Your task to perform on an android device: find snoozed emails in the gmail app Image 0: 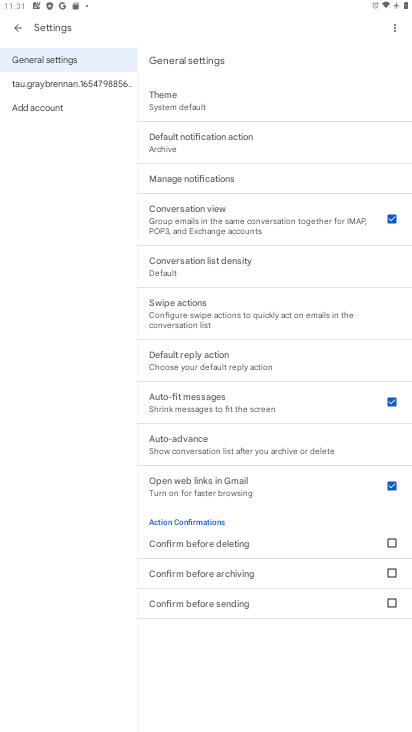
Step 0: press home button
Your task to perform on an android device: find snoozed emails in the gmail app Image 1: 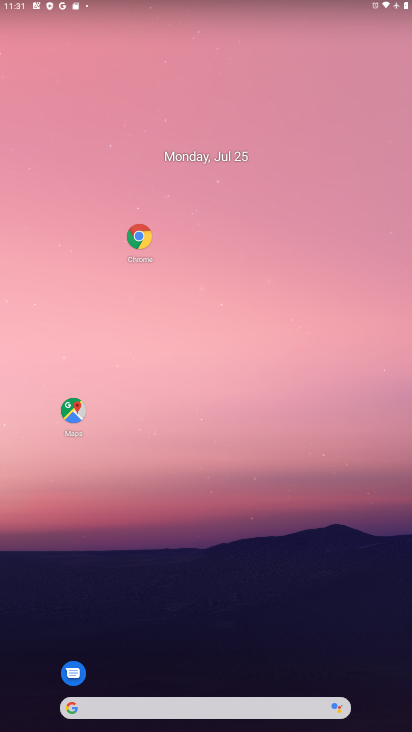
Step 1: drag from (264, 654) to (244, 110)
Your task to perform on an android device: find snoozed emails in the gmail app Image 2: 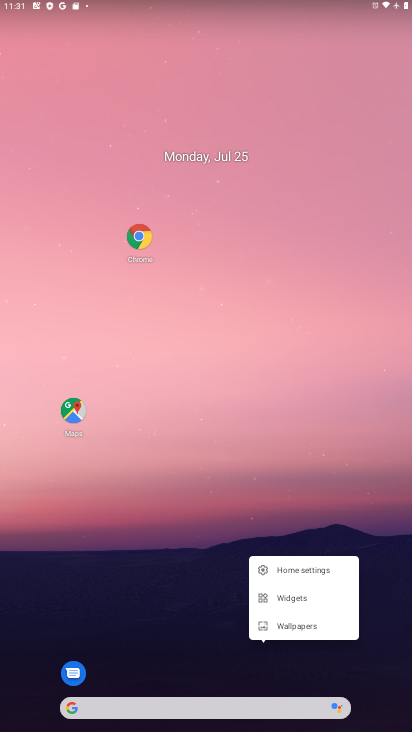
Step 2: click (176, 482)
Your task to perform on an android device: find snoozed emails in the gmail app Image 3: 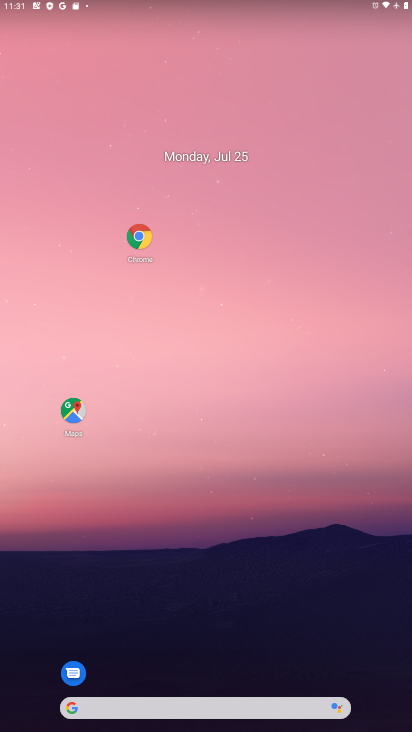
Step 3: drag from (213, 693) to (170, 292)
Your task to perform on an android device: find snoozed emails in the gmail app Image 4: 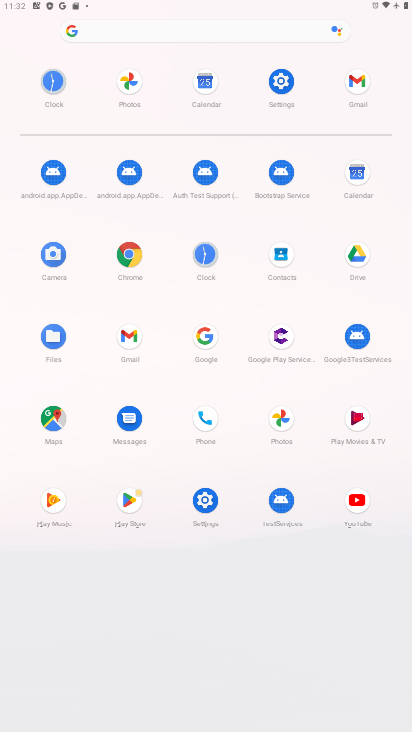
Step 4: click (365, 85)
Your task to perform on an android device: find snoozed emails in the gmail app Image 5: 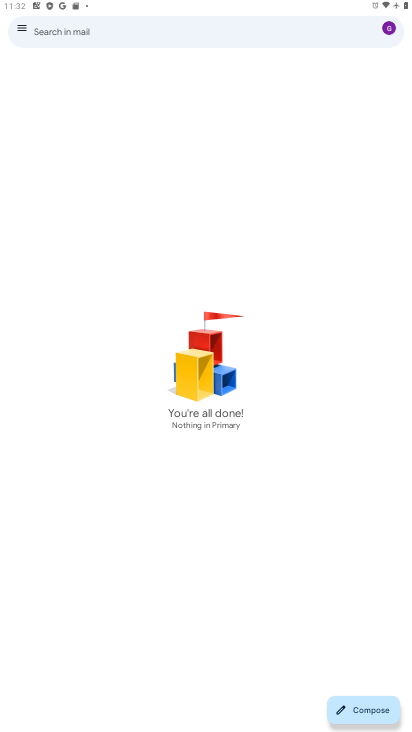
Step 5: click (27, 36)
Your task to perform on an android device: find snoozed emails in the gmail app Image 6: 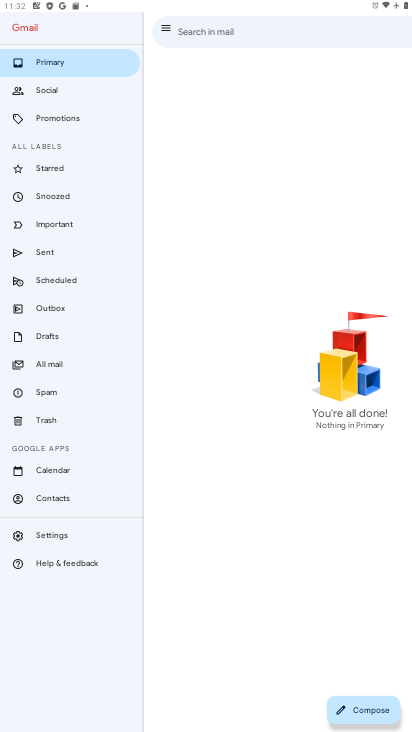
Step 6: click (54, 534)
Your task to perform on an android device: find snoozed emails in the gmail app Image 7: 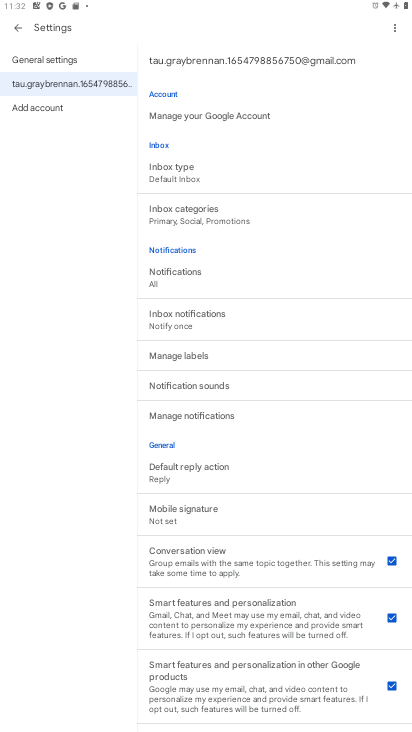
Step 7: task complete